Your task to perform on an android device: What is the recent news? Image 0: 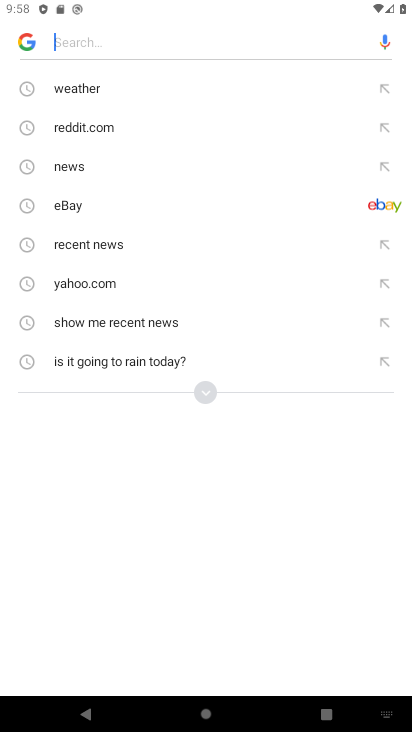
Step 0: press back button
Your task to perform on an android device: What is the recent news? Image 1: 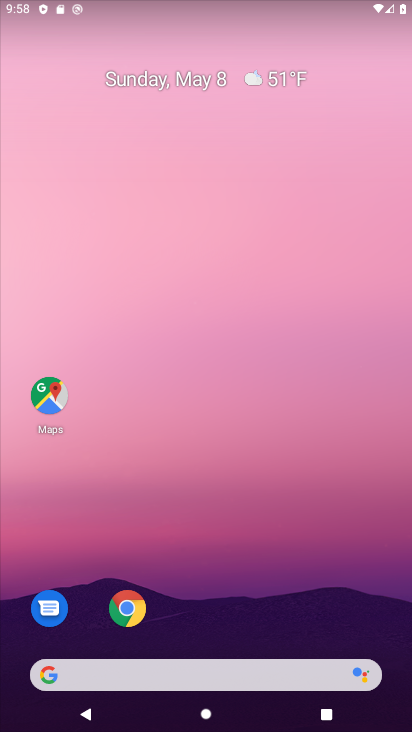
Step 1: task complete